Your task to perform on an android device: Open Android settings Image 0: 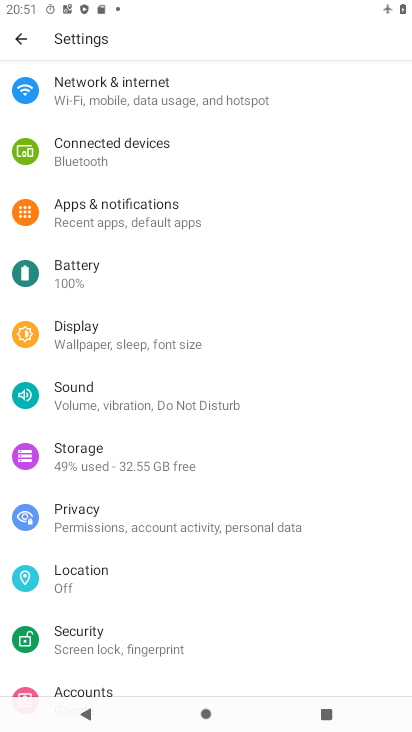
Step 0: drag from (290, 229) to (292, 599)
Your task to perform on an android device: Open Android settings Image 1: 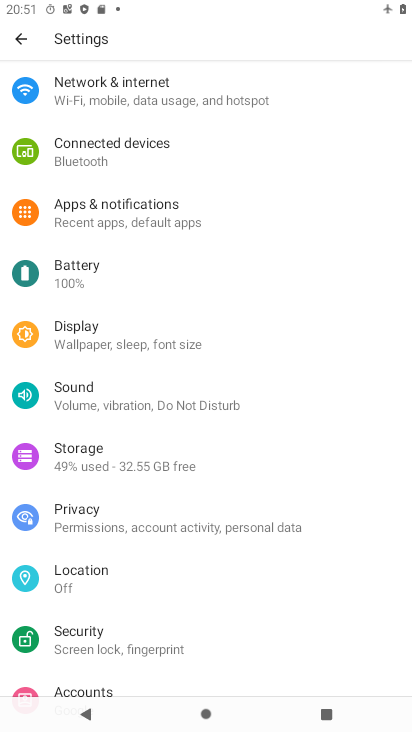
Step 1: task complete